Your task to perform on an android device: Open Google Chrome Image 0: 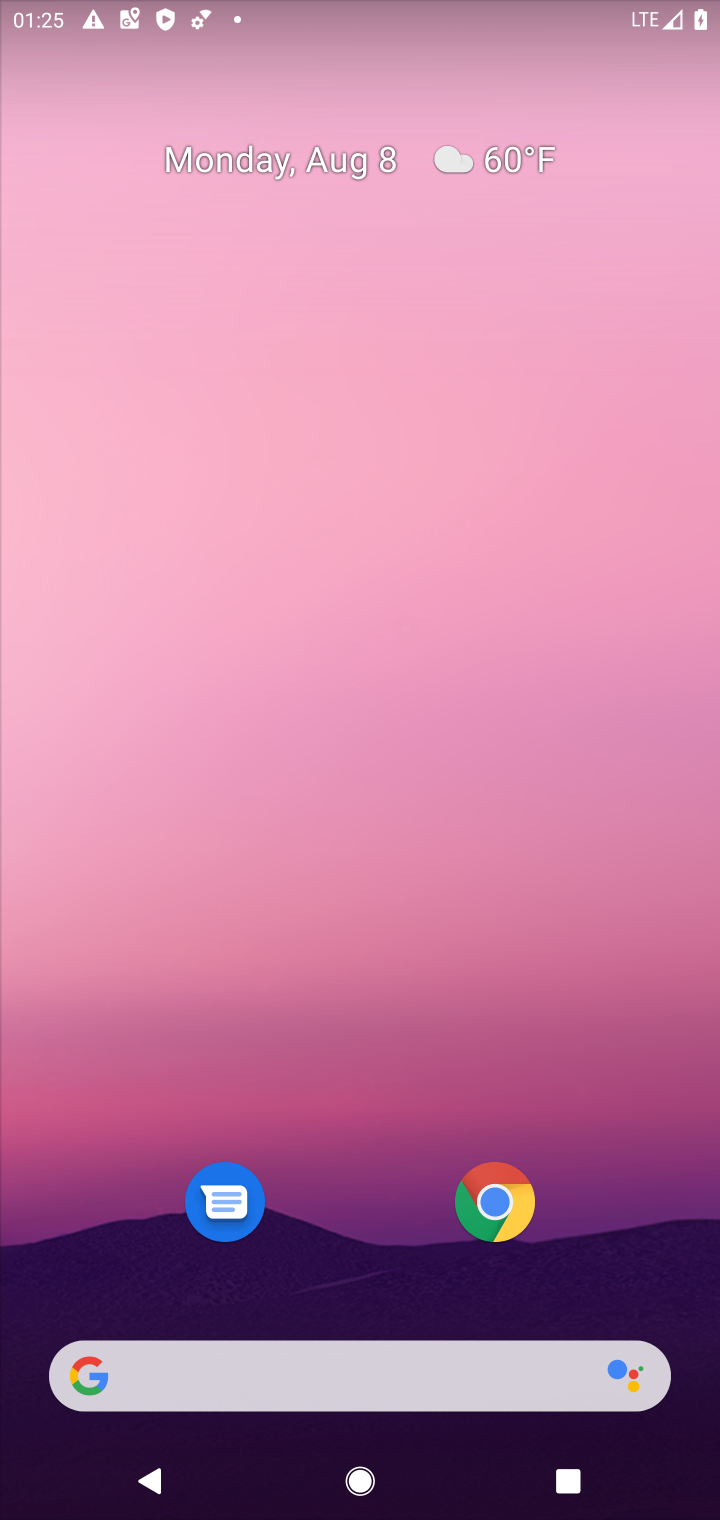
Step 0: click (507, 1206)
Your task to perform on an android device: Open Google Chrome Image 1: 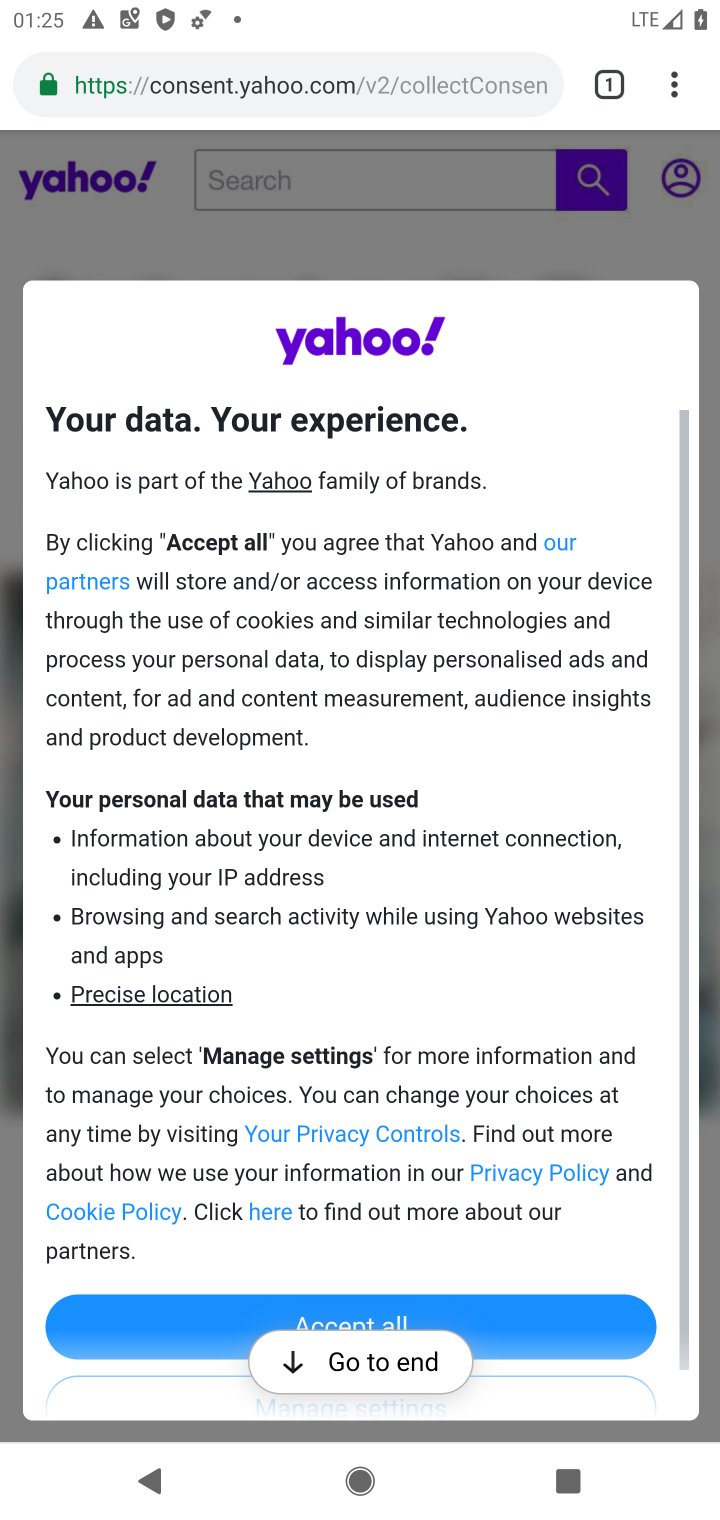
Step 1: task complete